Your task to perform on an android device: find which apps use the phone's location Image 0: 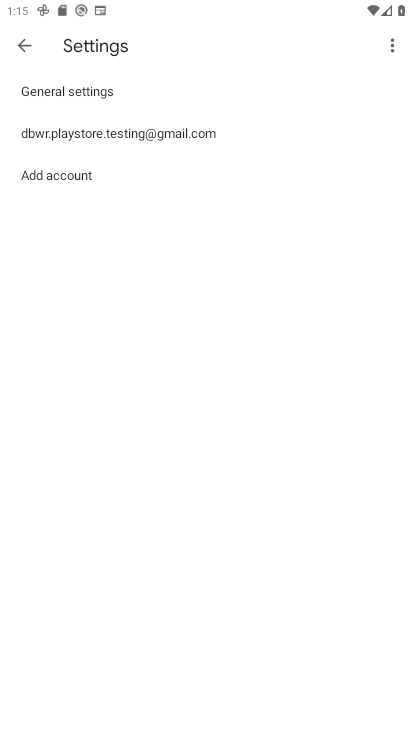
Step 0: press home button
Your task to perform on an android device: find which apps use the phone's location Image 1: 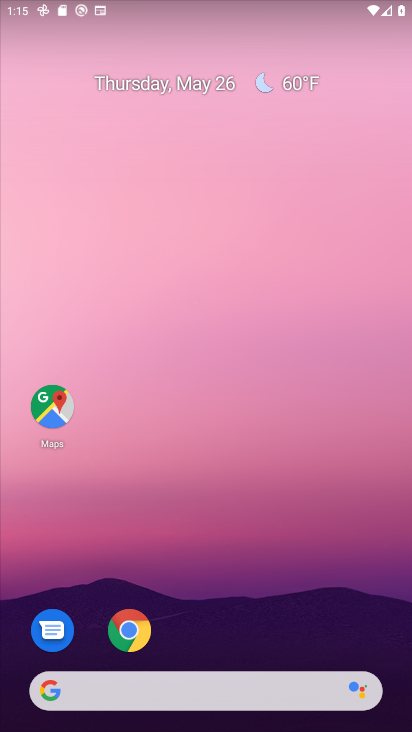
Step 1: drag from (338, 600) to (310, 133)
Your task to perform on an android device: find which apps use the phone's location Image 2: 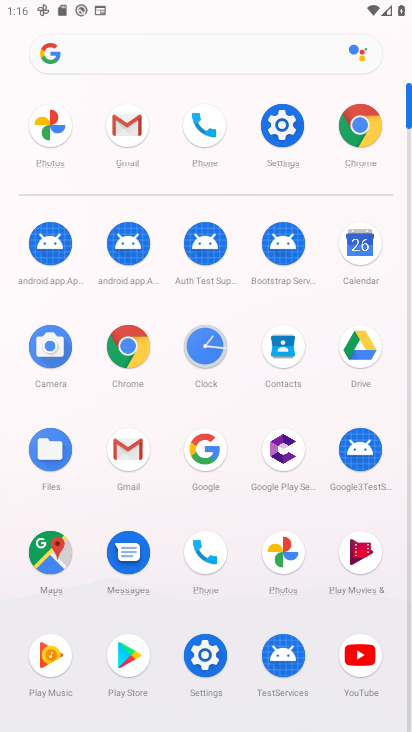
Step 2: click (272, 114)
Your task to perform on an android device: find which apps use the phone's location Image 3: 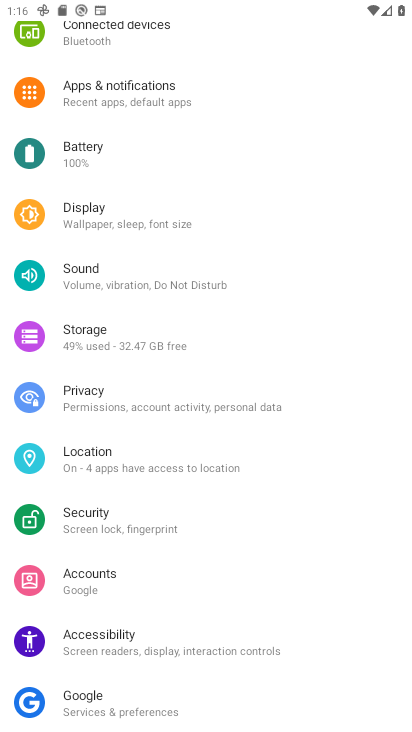
Step 3: click (141, 464)
Your task to perform on an android device: find which apps use the phone's location Image 4: 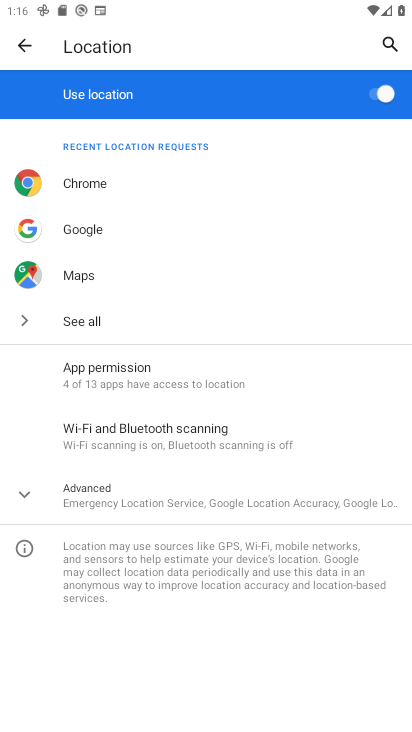
Step 4: click (119, 492)
Your task to perform on an android device: find which apps use the phone's location Image 5: 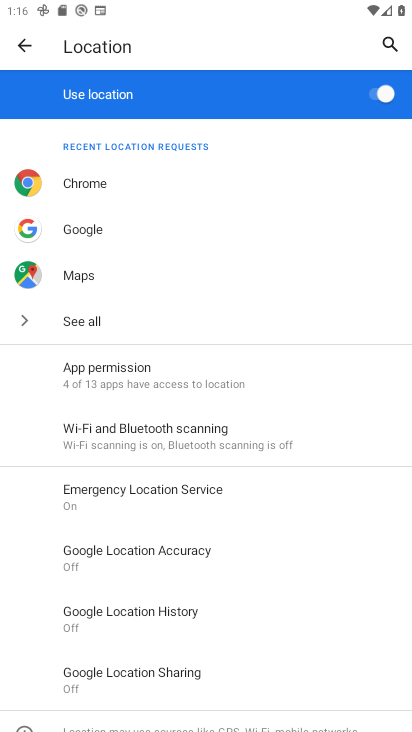
Step 5: task complete